Your task to perform on an android device: Open Amazon Image 0: 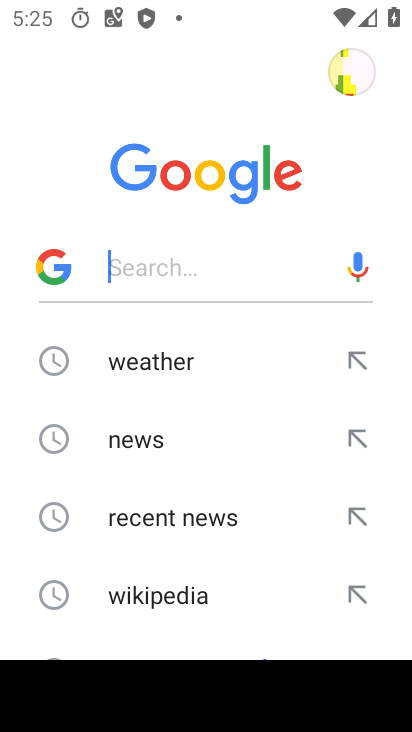
Step 0: press home button
Your task to perform on an android device: Open Amazon Image 1: 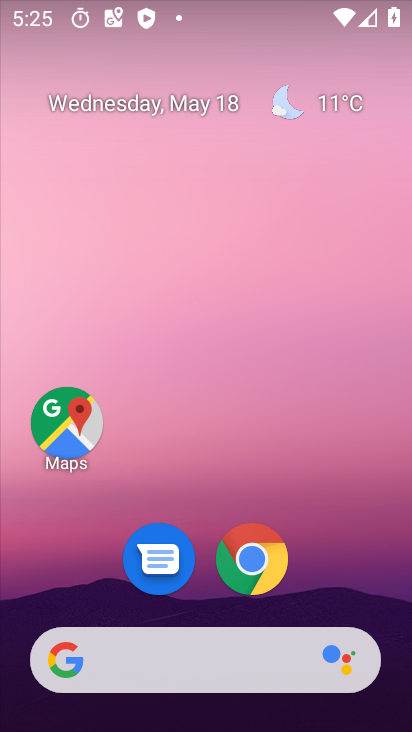
Step 1: click (263, 571)
Your task to perform on an android device: Open Amazon Image 2: 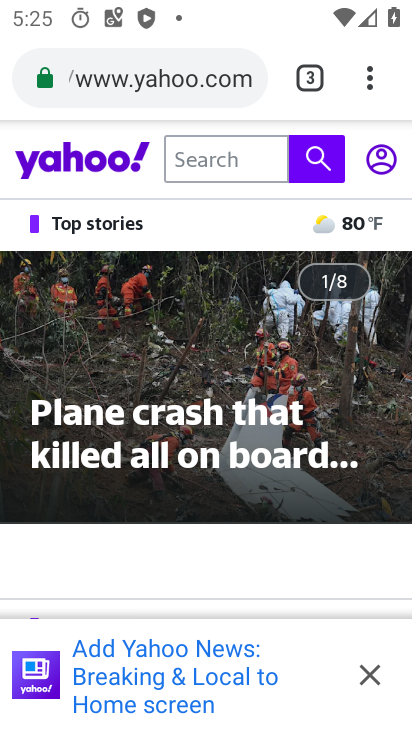
Step 2: click (305, 74)
Your task to perform on an android device: Open Amazon Image 3: 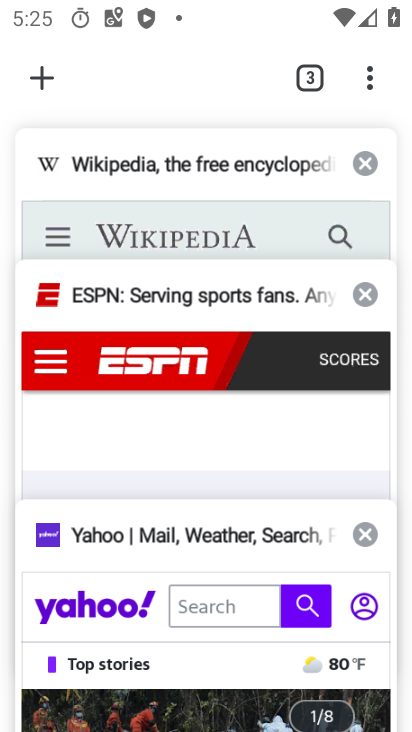
Step 3: click (33, 72)
Your task to perform on an android device: Open Amazon Image 4: 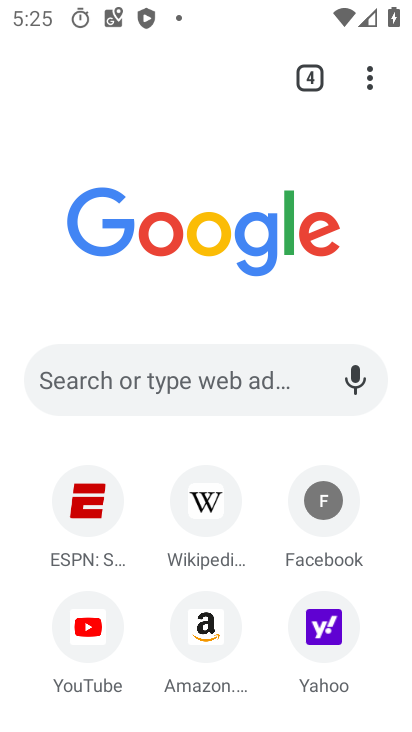
Step 4: click (177, 633)
Your task to perform on an android device: Open Amazon Image 5: 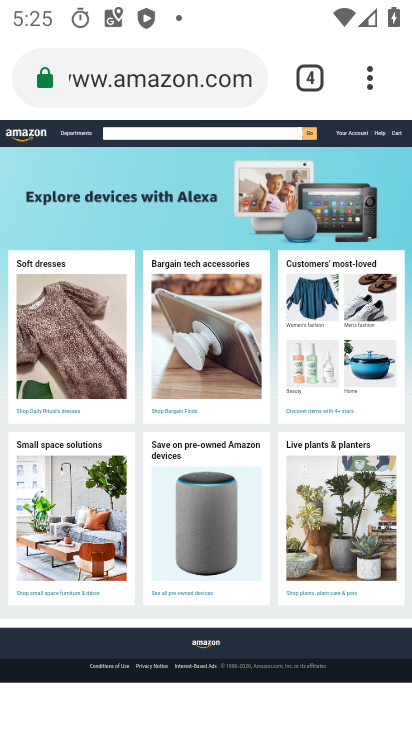
Step 5: task complete